Your task to perform on an android device: Open wifi settings Image 0: 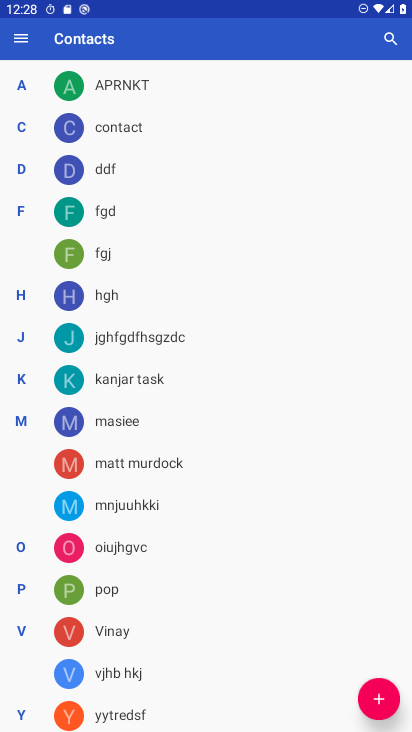
Step 0: press home button
Your task to perform on an android device: Open wifi settings Image 1: 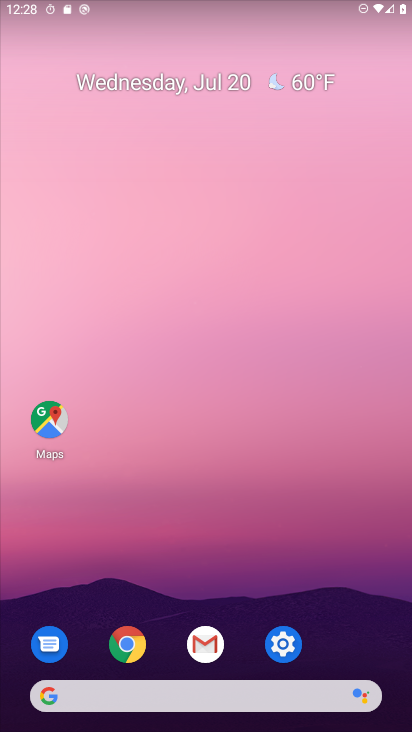
Step 1: click (280, 650)
Your task to perform on an android device: Open wifi settings Image 2: 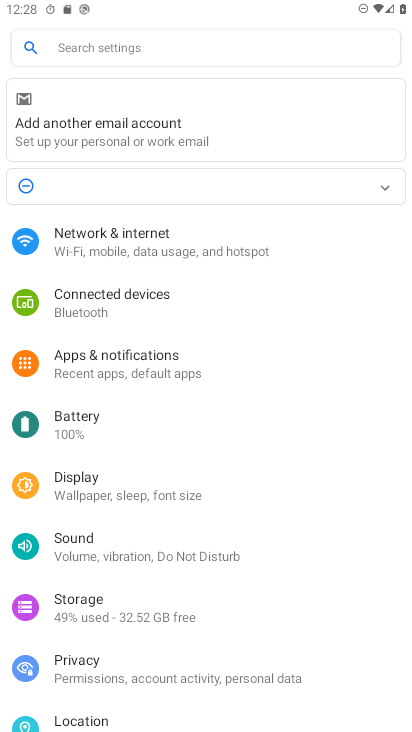
Step 2: click (129, 233)
Your task to perform on an android device: Open wifi settings Image 3: 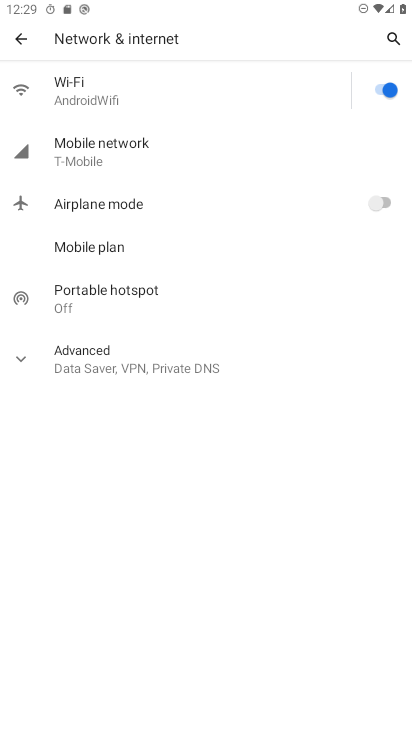
Step 3: click (108, 97)
Your task to perform on an android device: Open wifi settings Image 4: 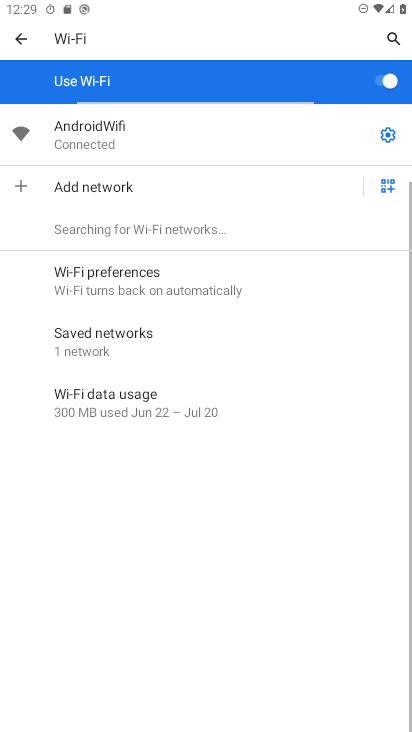
Step 4: task complete